Your task to perform on an android device: add a contact in the contacts app Image 0: 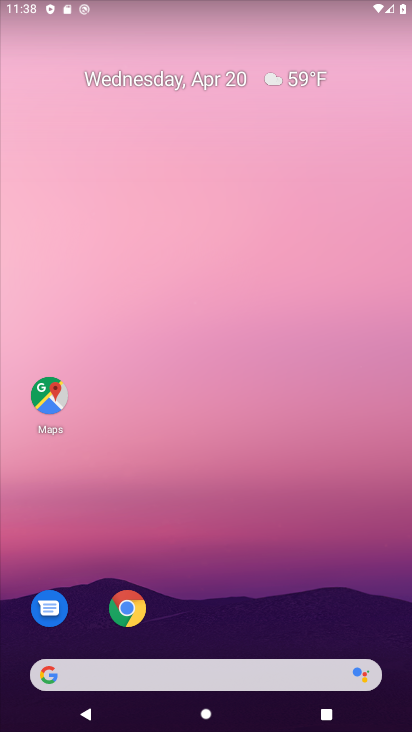
Step 0: drag from (210, 589) to (239, 107)
Your task to perform on an android device: add a contact in the contacts app Image 1: 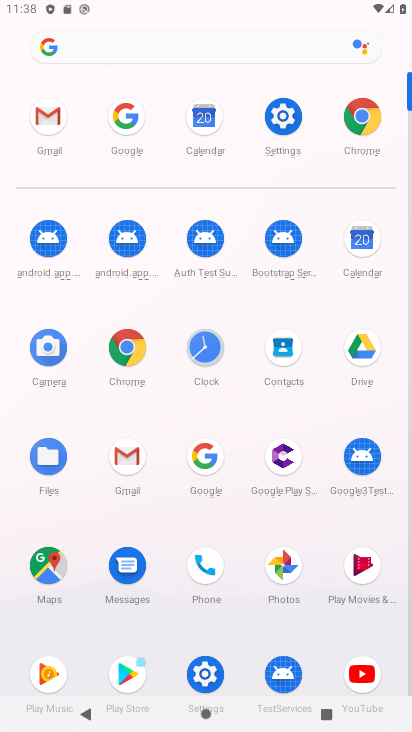
Step 1: click (284, 345)
Your task to perform on an android device: add a contact in the contacts app Image 2: 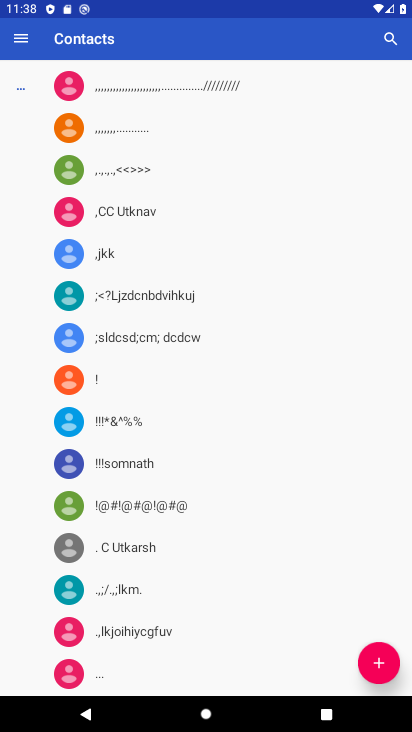
Step 2: click (385, 661)
Your task to perform on an android device: add a contact in the contacts app Image 3: 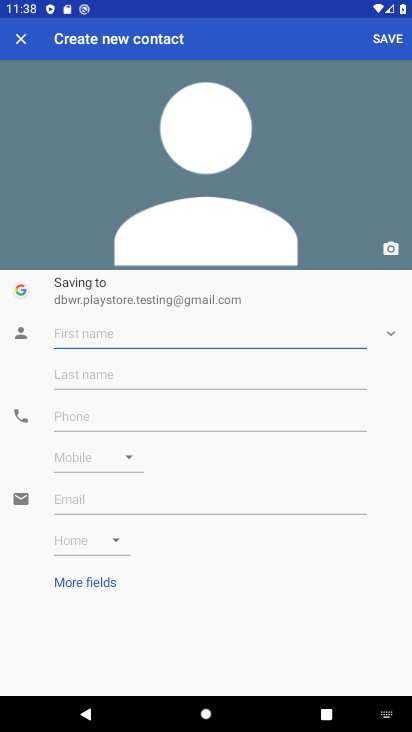
Step 3: type "hggh"
Your task to perform on an android device: add a contact in the contacts app Image 4: 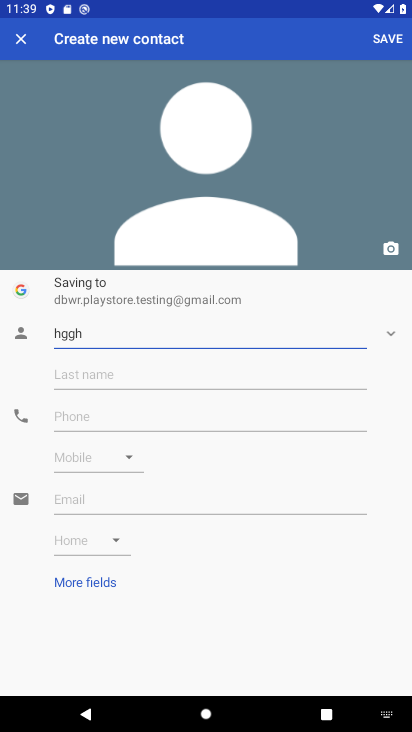
Step 4: click (393, 42)
Your task to perform on an android device: add a contact in the contacts app Image 5: 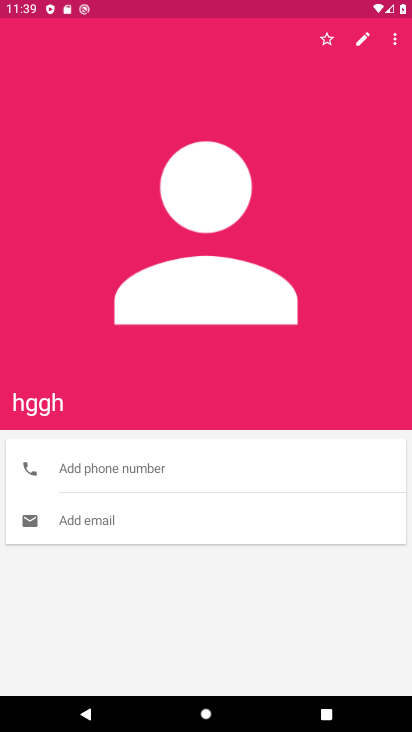
Step 5: task complete